Your task to perform on an android device: see tabs open on other devices in the chrome app Image 0: 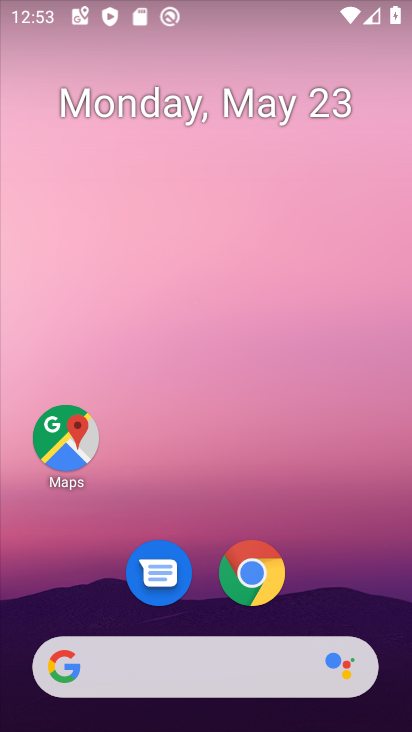
Step 0: drag from (280, 657) to (304, 191)
Your task to perform on an android device: see tabs open on other devices in the chrome app Image 1: 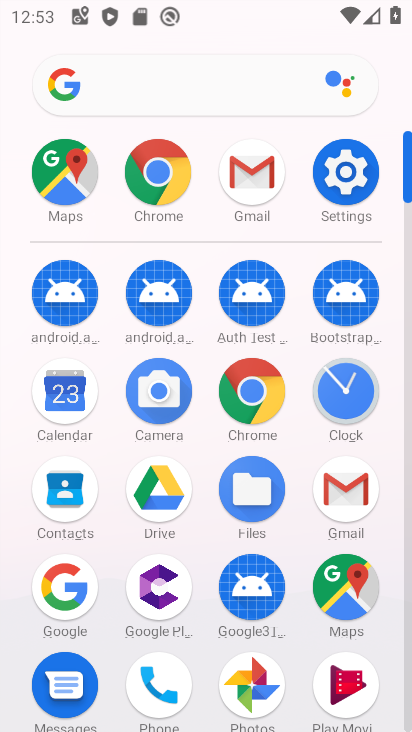
Step 1: click (255, 396)
Your task to perform on an android device: see tabs open on other devices in the chrome app Image 2: 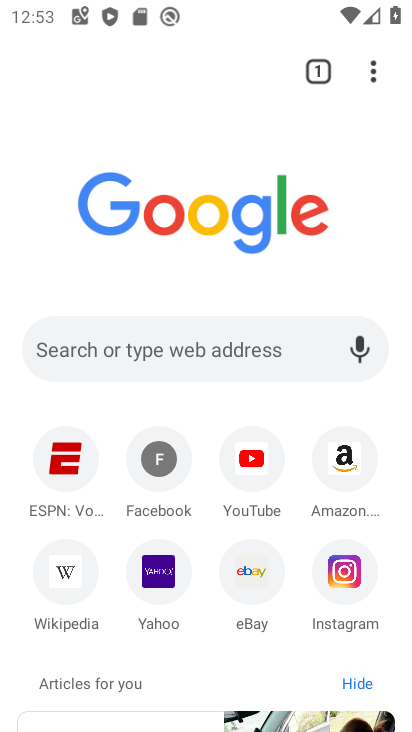
Step 2: task complete